Your task to perform on an android device: Open settings on Google Maps Image 0: 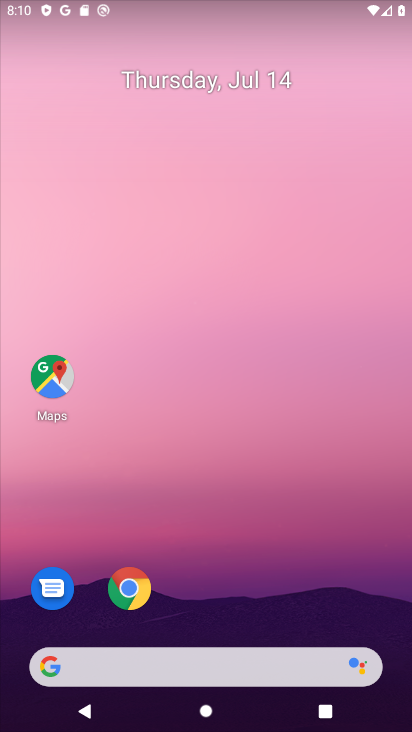
Step 0: click (59, 384)
Your task to perform on an android device: Open settings on Google Maps Image 1: 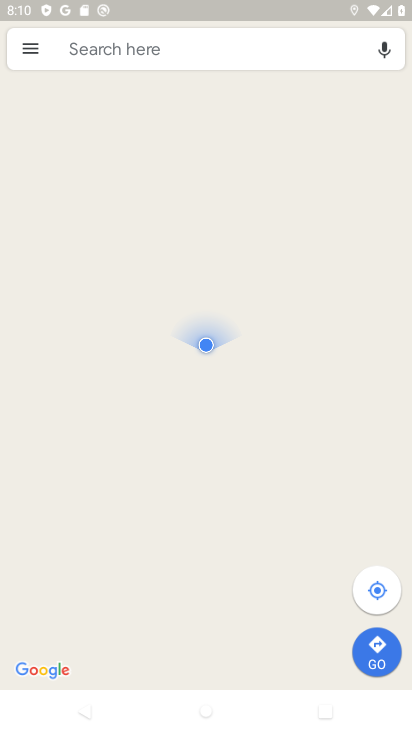
Step 1: click (32, 53)
Your task to perform on an android device: Open settings on Google Maps Image 2: 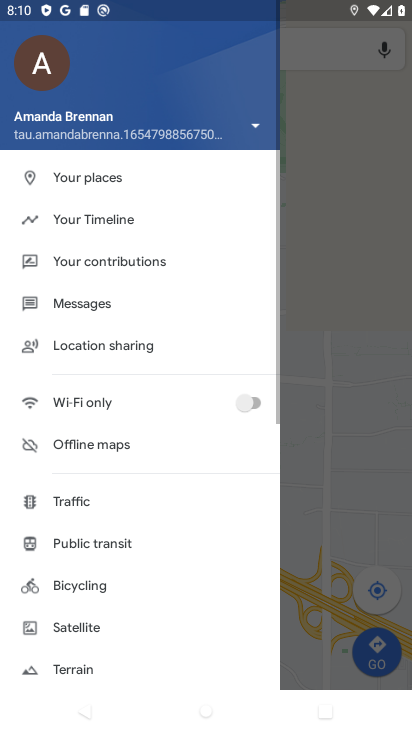
Step 2: drag from (95, 658) to (100, 346)
Your task to perform on an android device: Open settings on Google Maps Image 3: 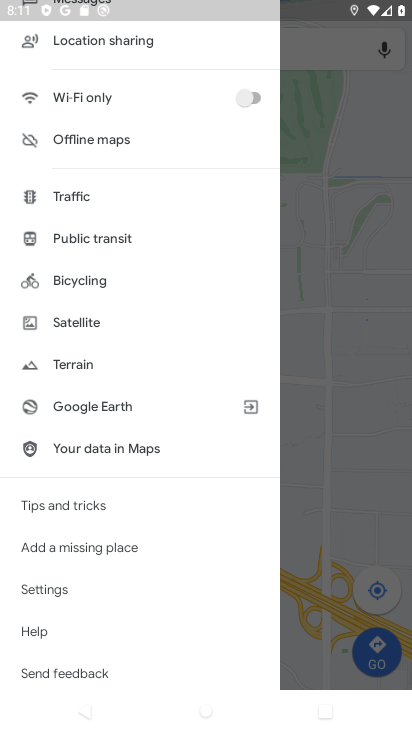
Step 3: click (66, 585)
Your task to perform on an android device: Open settings on Google Maps Image 4: 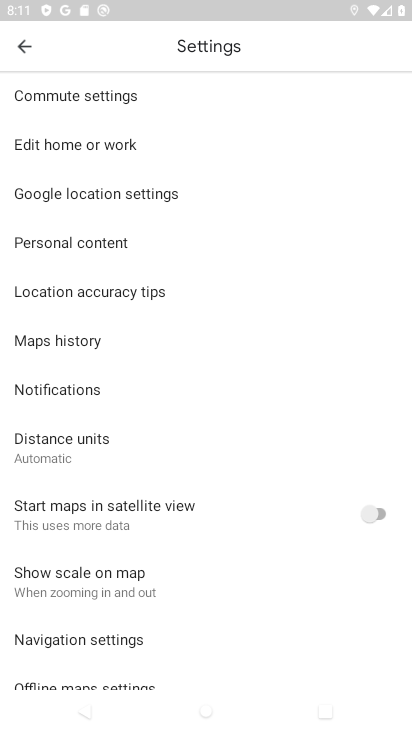
Step 4: task complete